Your task to perform on an android device: Go to display settings Image 0: 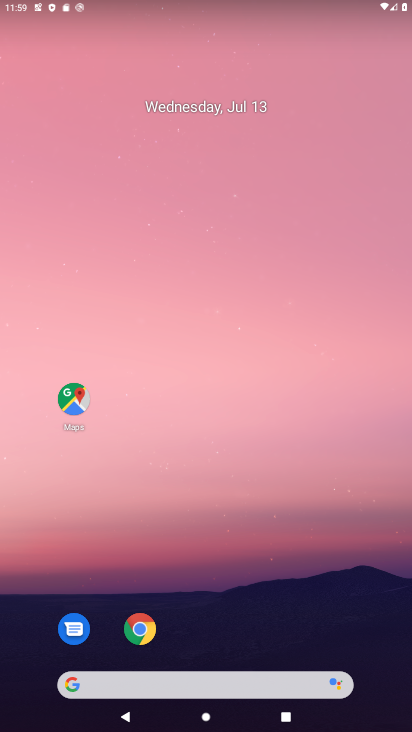
Step 0: drag from (350, 639) to (250, 71)
Your task to perform on an android device: Go to display settings Image 1: 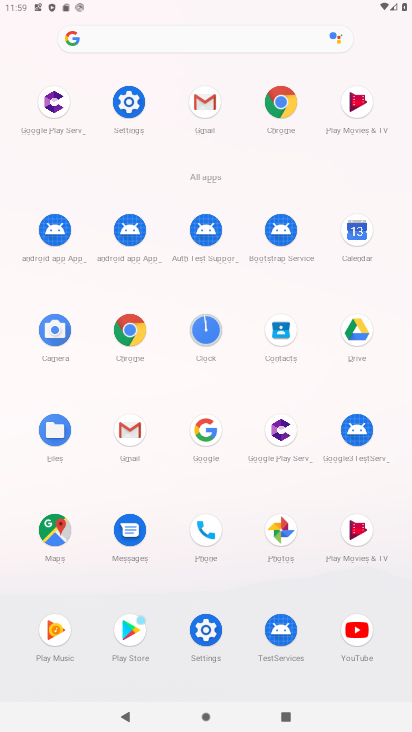
Step 1: click (133, 104)
Your task to perform on an android device: Go to display settings Image 2: 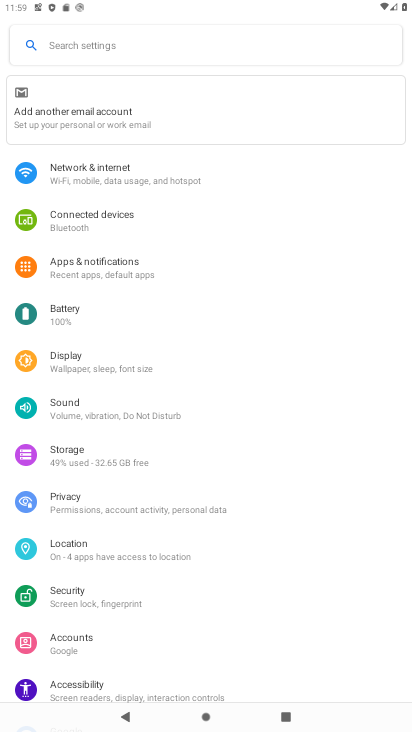
Step 2: click (127, 356)
Your task to perform on an android device: Go to display settings Image 3: 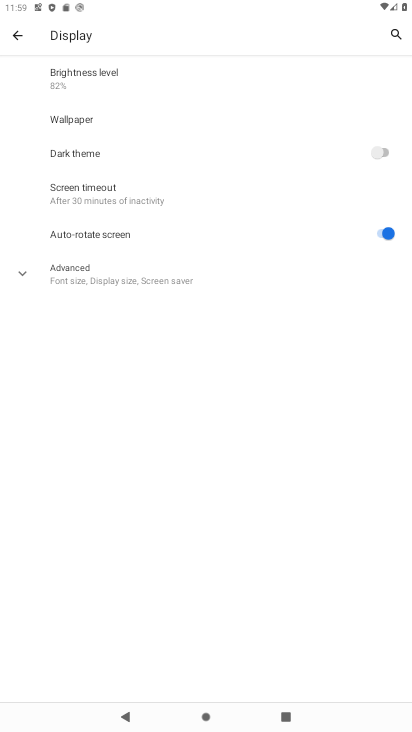
Step 3: task complete